Your task to perform on an android device: Search for a nightstand on IKEA. Image 0: 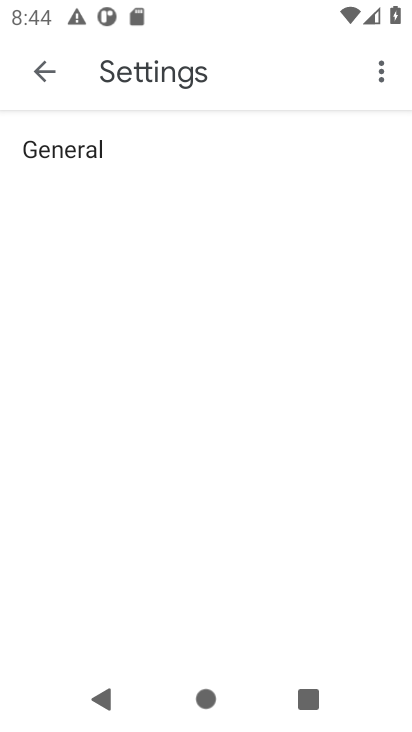
Step 0: press home button
Your task to perform on an android device: Search for a nightstand on IKEA. Image 1: 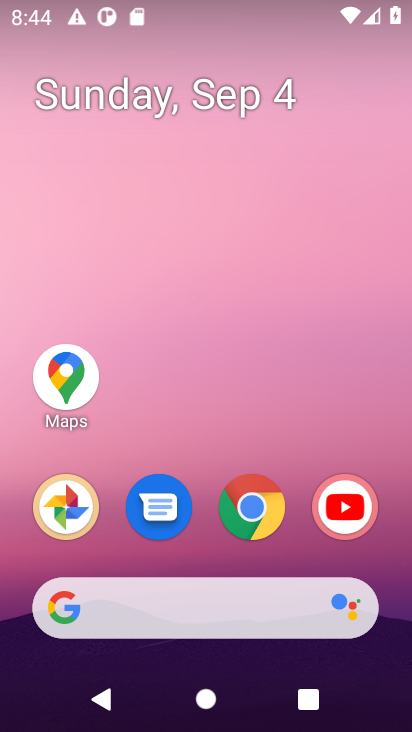
Step 1: click (255, 510)
Your task to perform on an android device: Search for a nightstand on IKEA. Image 2: 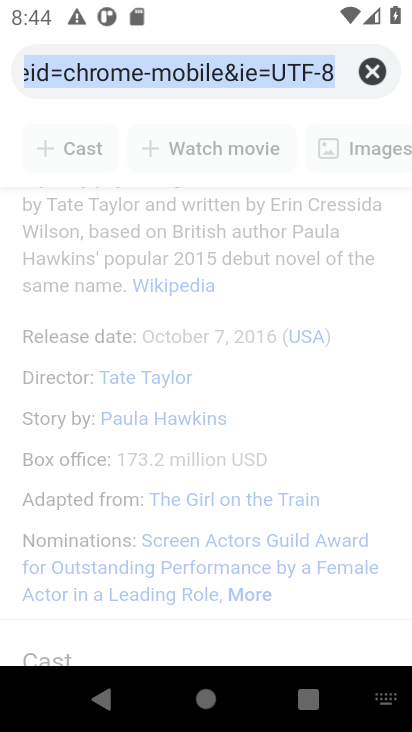
Step 2: click (367, 61)
Your task to perform on an android device: Search for a nightstand on IKEA. Image 3: 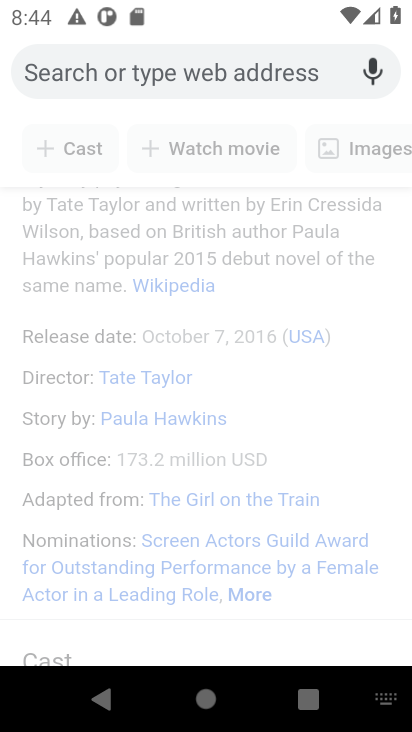
Step 3: type " IKEA."
Your task to perform on an android device: Search for a nightstand on IKEA. Image 4: 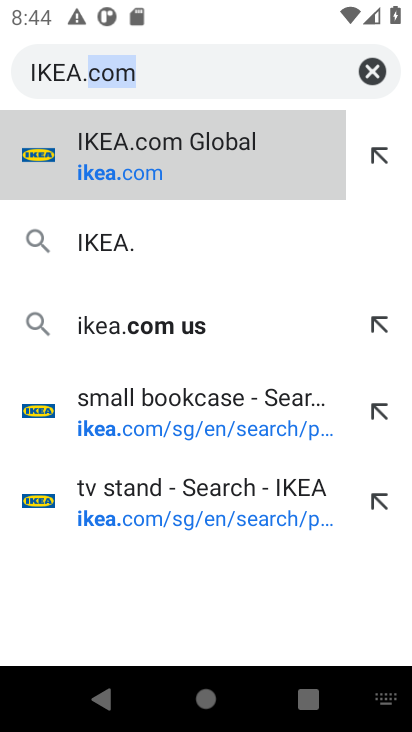
Step 4: click (109, 144)
Your task to perform on an android device: Search for a nightstand on IKEA. Image 5: 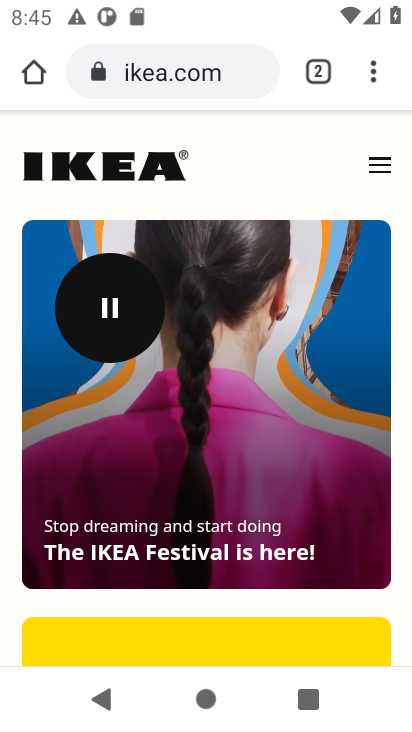
Step 5: drag from (240, 428) to (246, 171)
Your task to perform on an android device: Search for a nightstand on IKEA. Image 6: 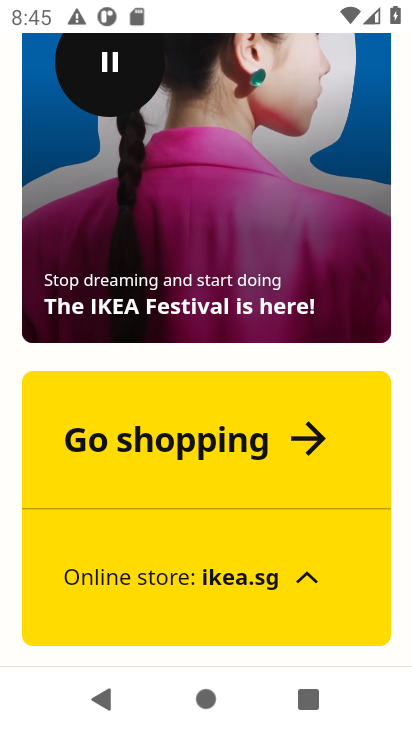
Step 6: click (182, 450)
Your task to perform on an android device: Search for a nightstand on IKEA. Image 7: 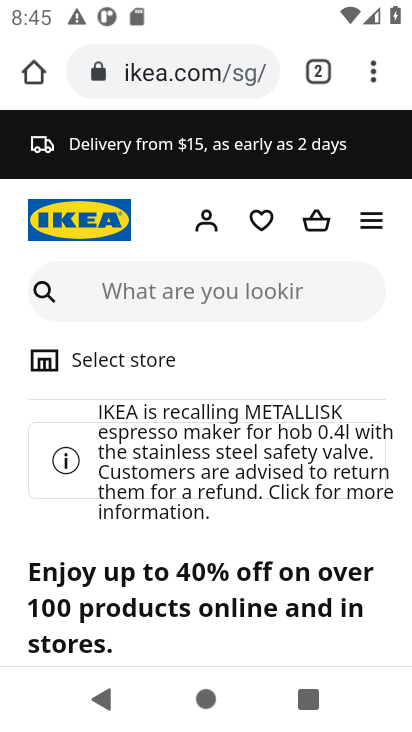
Step 7: click (182, 280)
Your task to perform on an android device: Search for a nightstand on IKEA. Image 8: 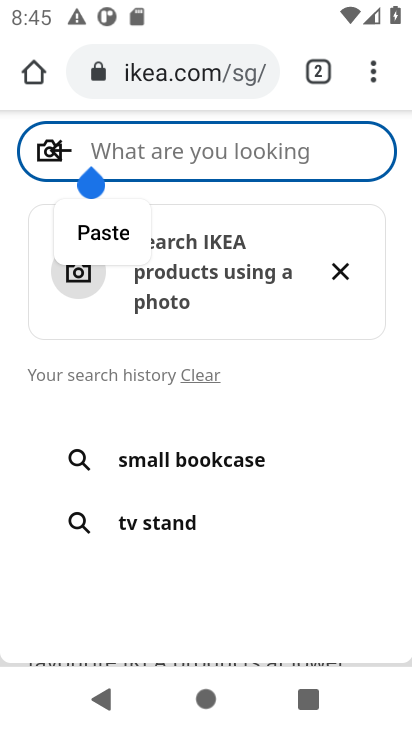
Step 8: type "nightstand"
Your task to perform on an android device: Search for a nightstand on IKEA. Image 9: 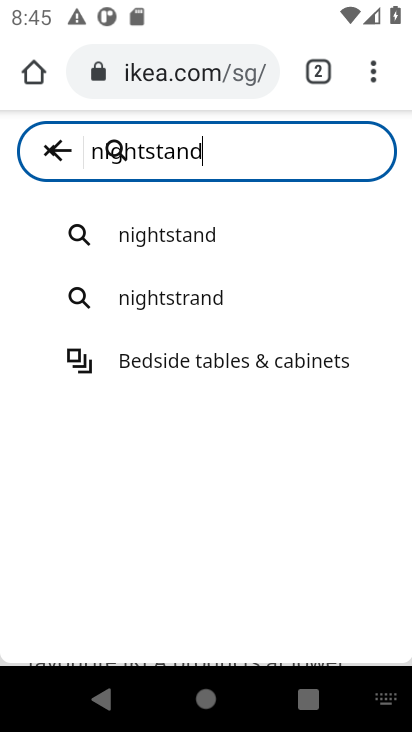
Step 9: click (178, 232)
Your task to perform on an android device: Search for a nightstand on IKEA. Image 10: 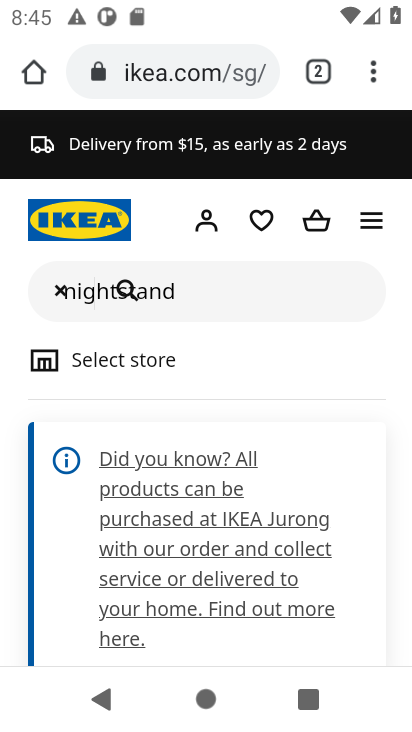
Step 10: drag from (276, 423) to (246, 89)
Your task to perform on an android device: Search for a nightstand on IKEA. Image 11: 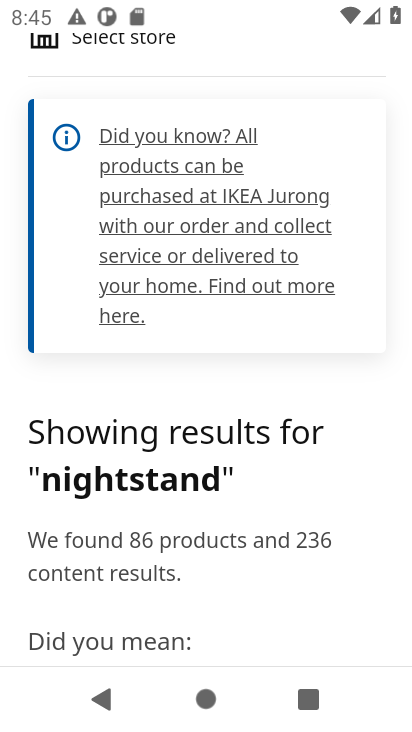
Step 11: drag from (215, 540) to (209, 173)
Your task to perform on an android device: Search for a nightstand on IKEA. Image 12: 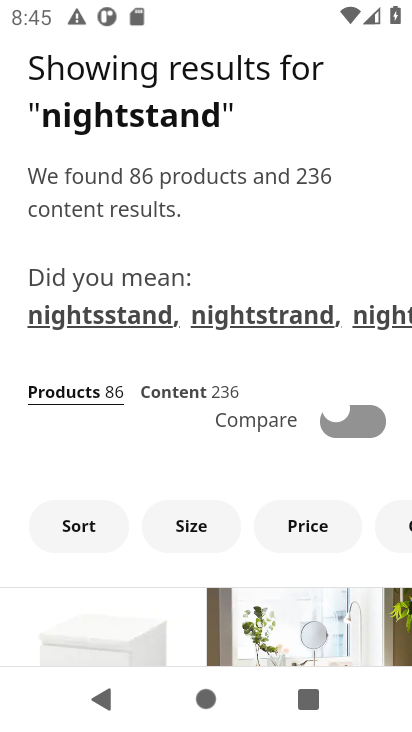
Step 12: drag from (217, 314) to (205, 193)
Your task to perform on an android device: Search for a nightstand on IKEA. Image 13: 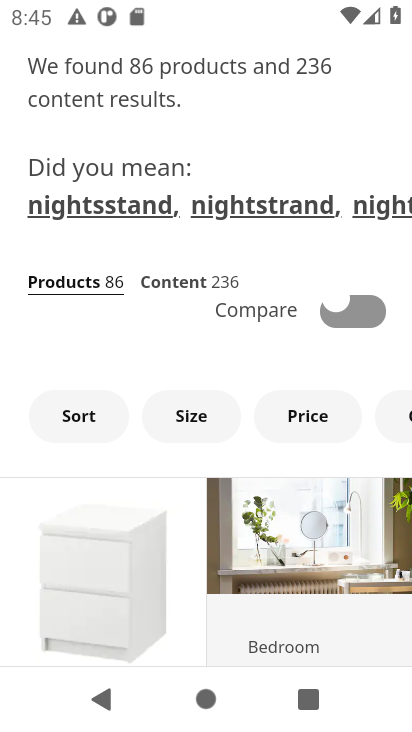
Step 13: drag from (201, 622) to (201, 254)
Your task to perform on an android device: Search for a nightstand on IKEA. Image 14: 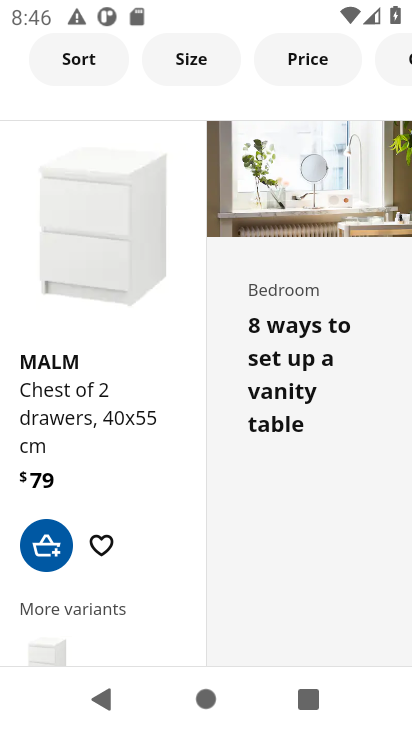
Step 14: drag from (199, 618) to (196, 234)
Your task to perform on an android device: Search for a nightstand on IKEA. Image 15: 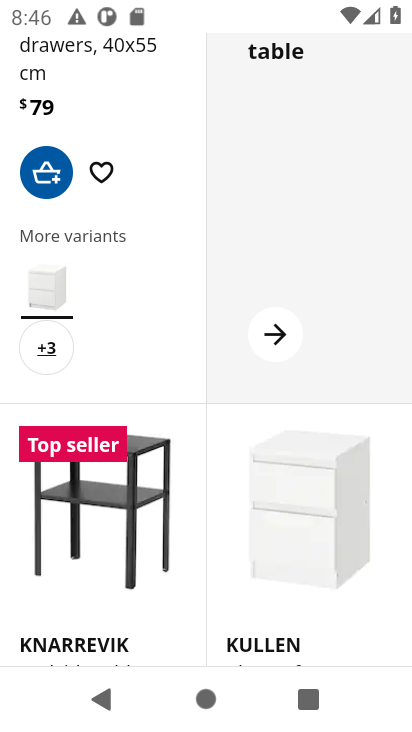
Step 15: drag from (200, 605) to (217, 253)
Your task to perform on an android device: Search for a nightstand on IKEA. Image 16: 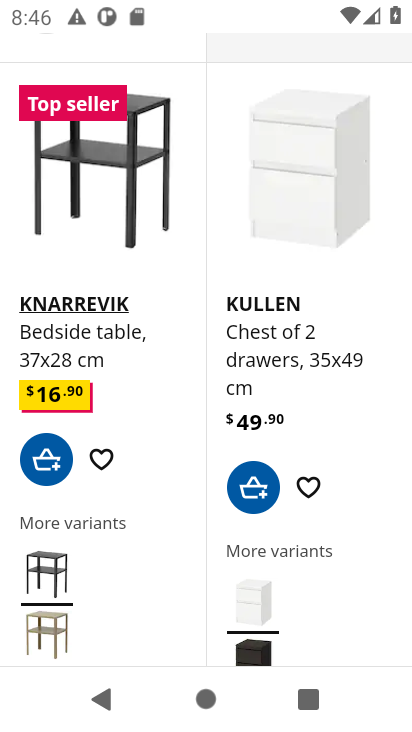
Step 16: drag from (226, 498) to (225, 235)
Your task to perform on an android device: Search for a nightstand on IKEA. Image 17: 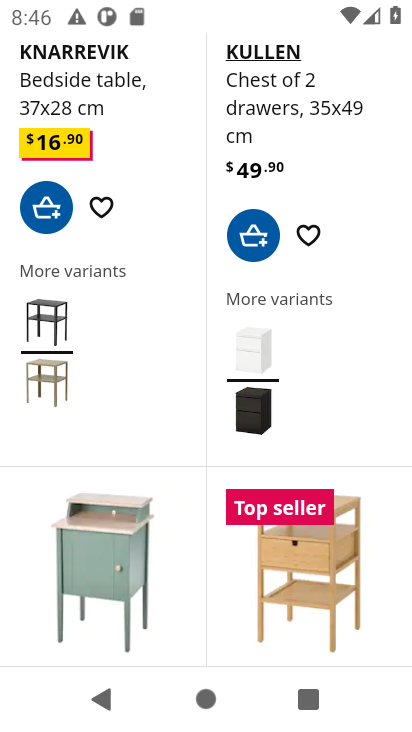
Step 17: drag from (205, 535) to (211, 293)
Your task to perform on an android device: Search for a nightstand on IKEA. Image 18: 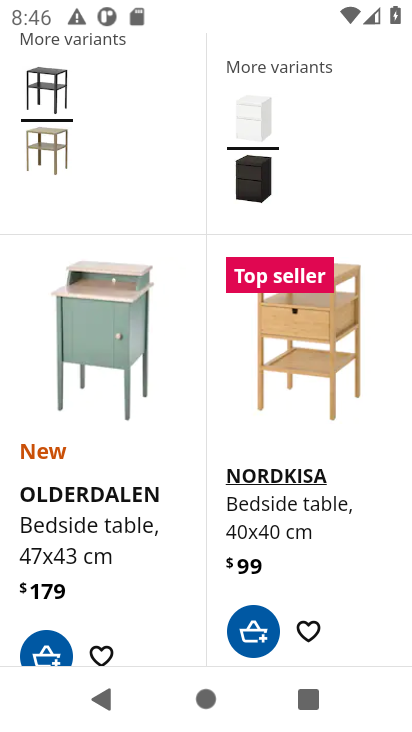
Step 18: drag from (205, 533) to (207, 243)
Your task to perform on an android device: Search for a nightstand on IKEA. Image 19: 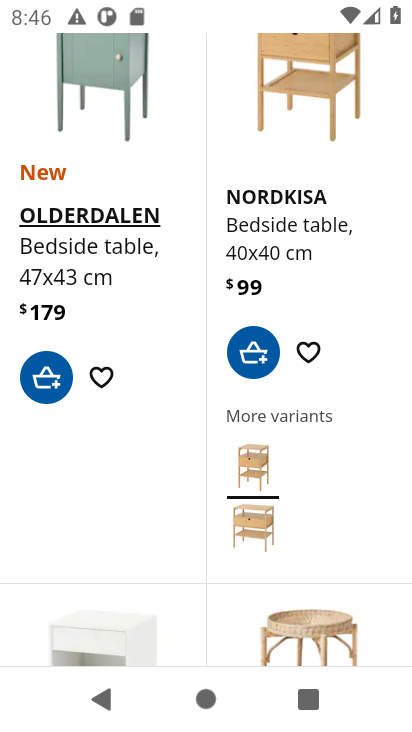
Step 19: drag from (197, 531) to (209, 151)
Your task to perform on an android device: Search for a nightstand on IKEA. Image 20: 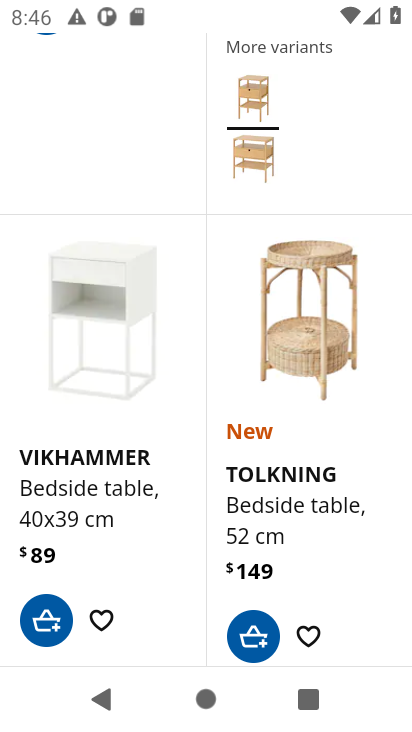
Step 20: click (212, 217)
Your task to perform on an android device: Search for a nightstand on IKEA. Image 21: 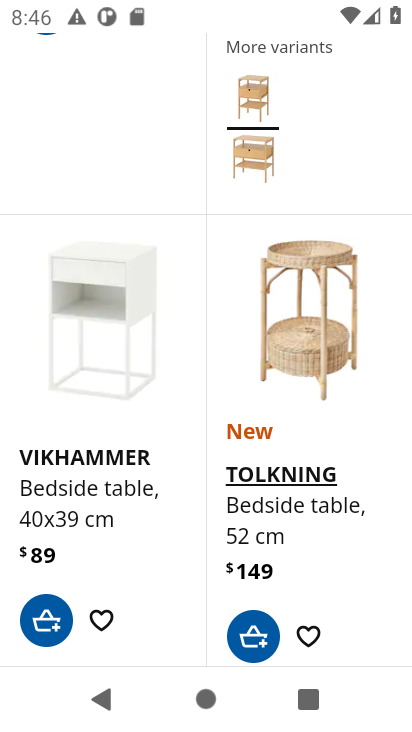
Step 21: task complete